Your task to perform on an android device: Open internet settings Image 0: 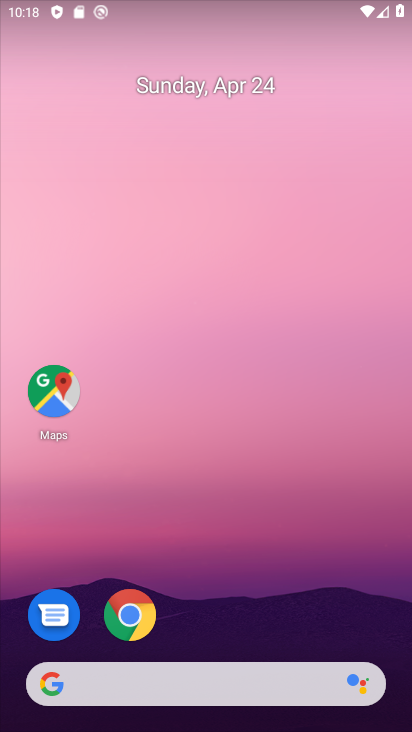
Step 0: drag from (223, 645) to (224, 88)
Your task to perform on an android device: Open internet settings Image 1: 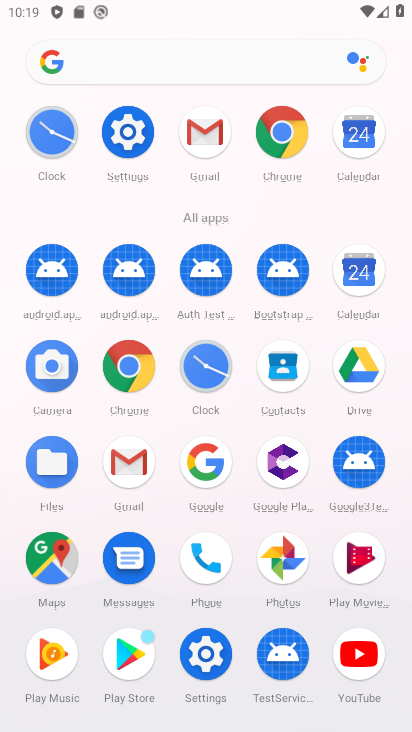
Step 1: click (127, 123)
Your task to perform on an android device: Open internet settings Image 2: 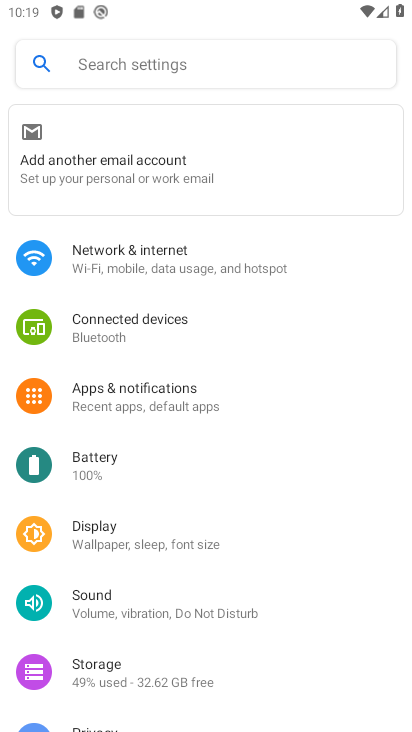
Step 2: click (197, 248)
Your task to perform on an android device: Open internet settings Image 3: 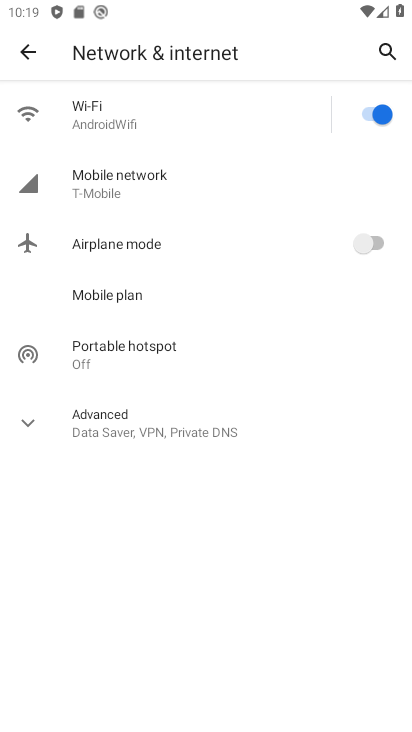
Step 3: click (24, 417)
Your task to perform on an android device: Open internet settings Image 4: 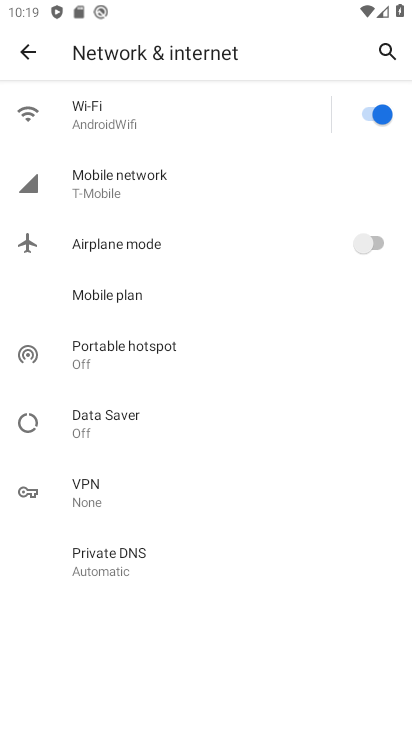
Step 4: task complete